Your task to perform on an android device: What's on my calendar today? Image 0: 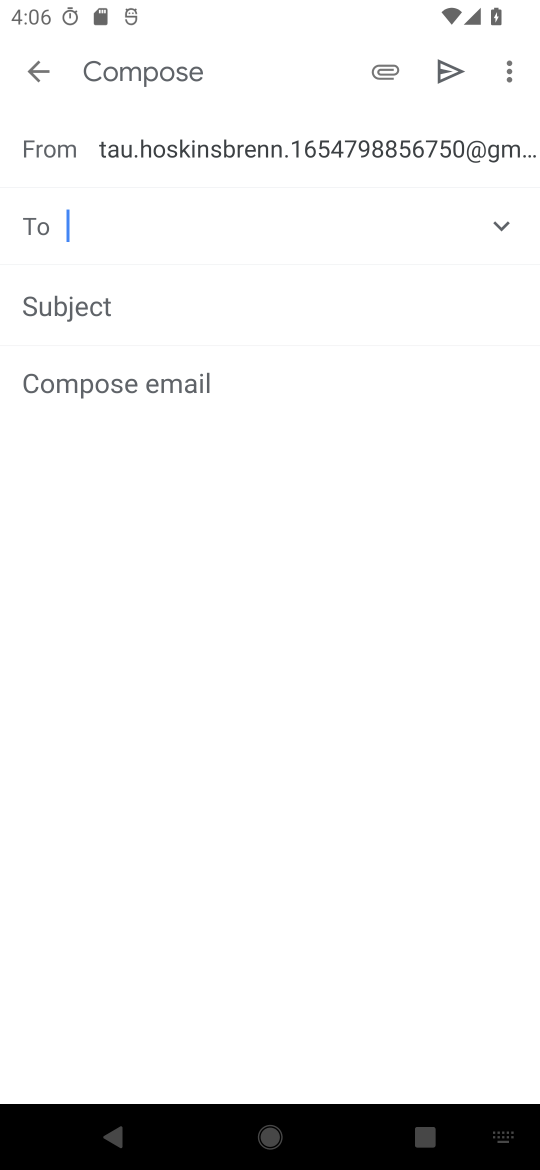
Step 0: press home button
Your task to perform on an android device: What's on my calendar today? Image 1: 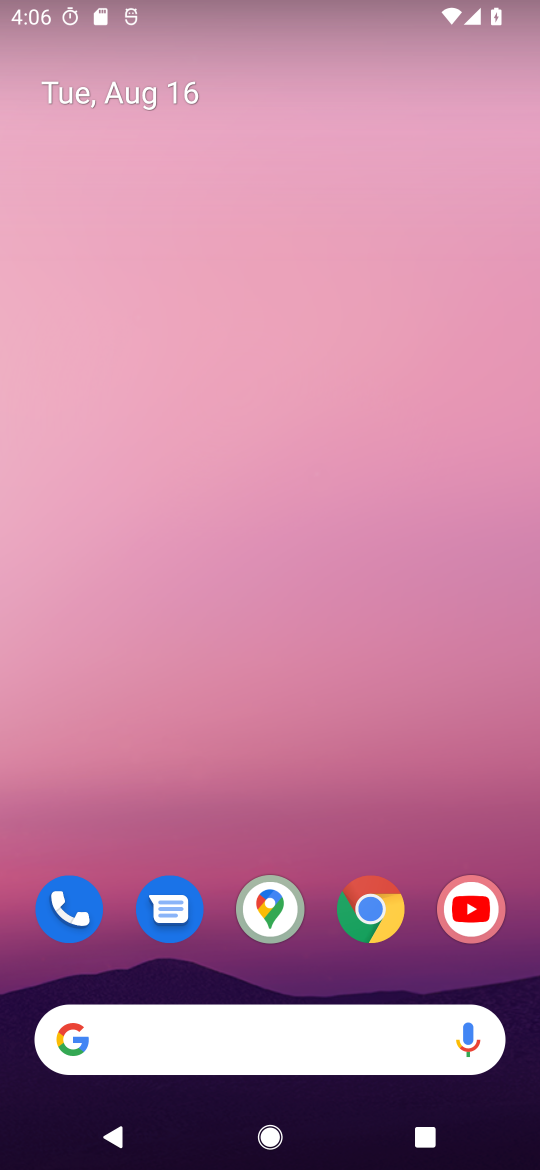
Step 1: drag from (258, 922) to (247, 91)
Your task to perform on an android device: What's on my calendar today? Image 2: 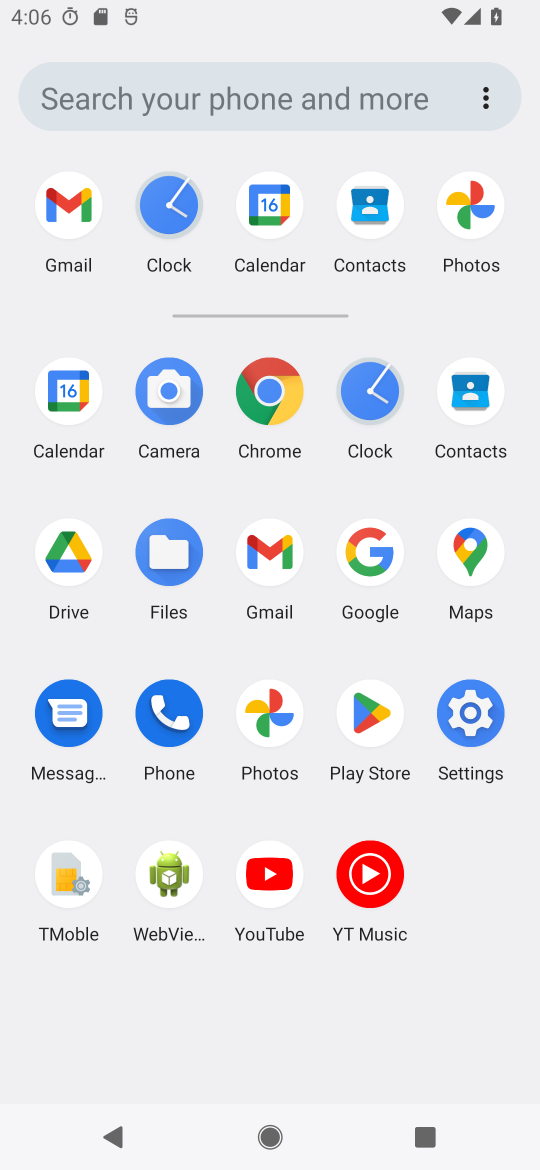
Step 2: click (56, 390)
Your task to perform on an android device: What's on my calendar today? Image 3: 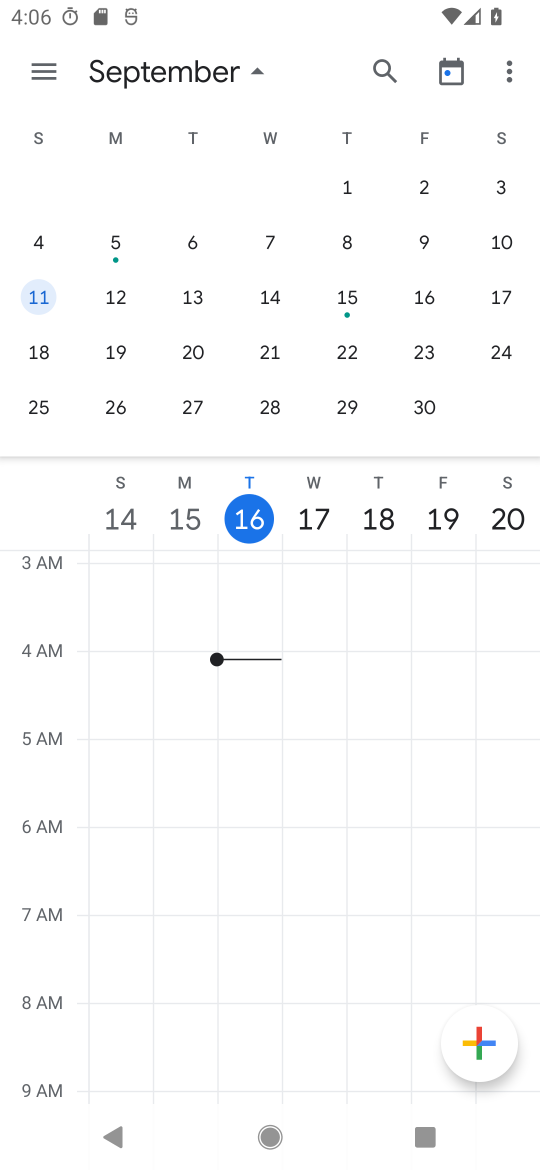
Step 3: task complete